Your task to perform on an android device: install app "Messenger Lite" Image 0: 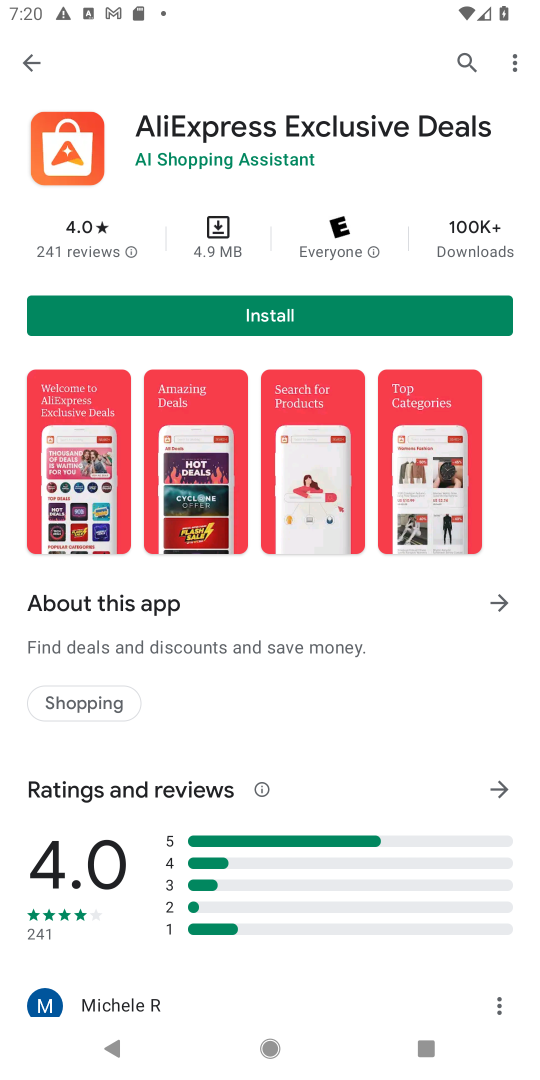
Step 0: press home button
Your task to perform on an android device: install app "Messenger Lite" Image 1: 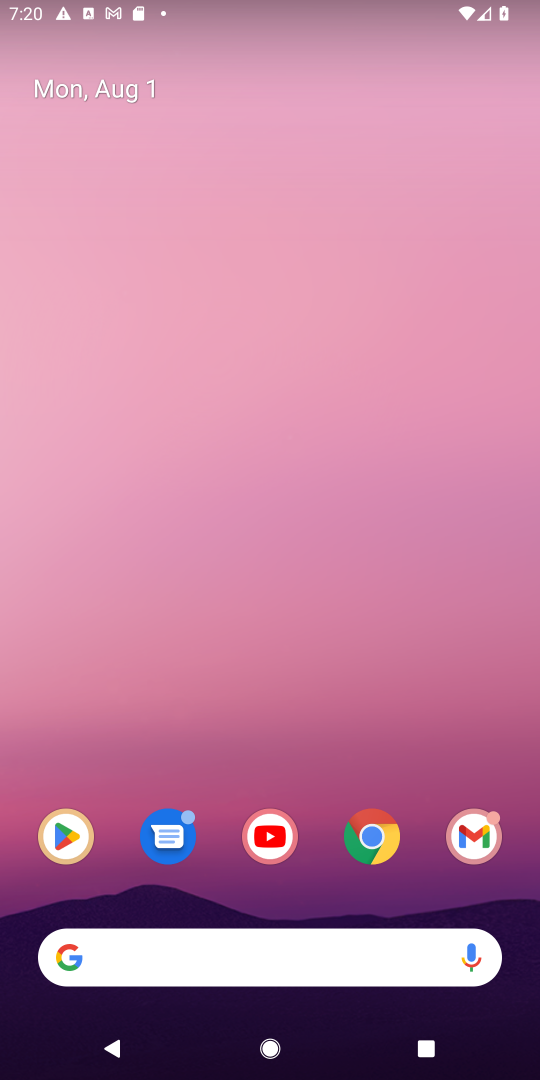
Step 1: click (63, 839)
Your task to perform on an android device: install app "Messenger Lite" Image 2: 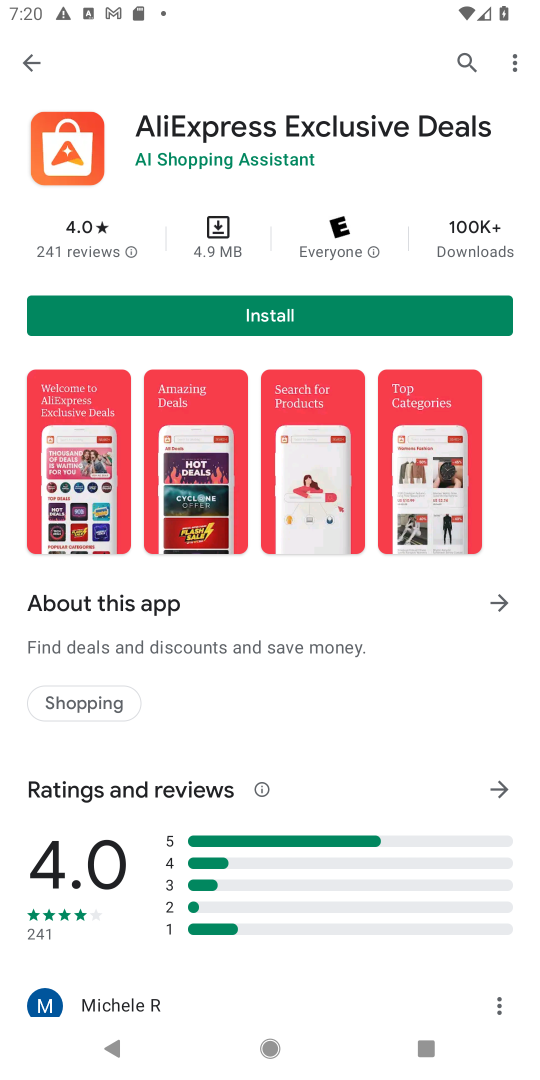
Step 2: click (468, 62)
Your task to perform on an android device: install app "Messenger Lite" Image 3: 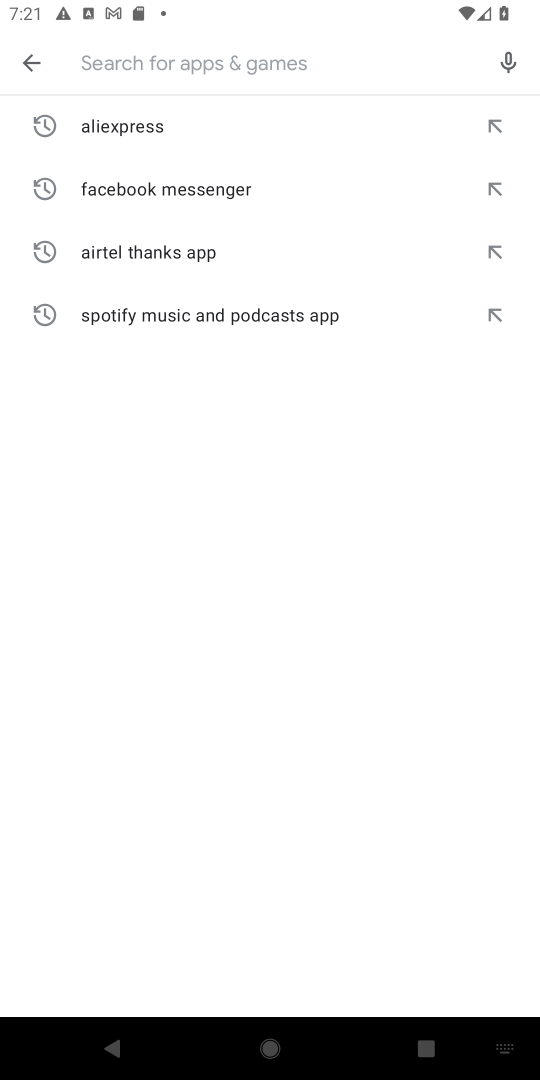
Step 3: type "Messenger Lite"
Your task to perform on an android device: install app "Messenger Lite" Image 4: 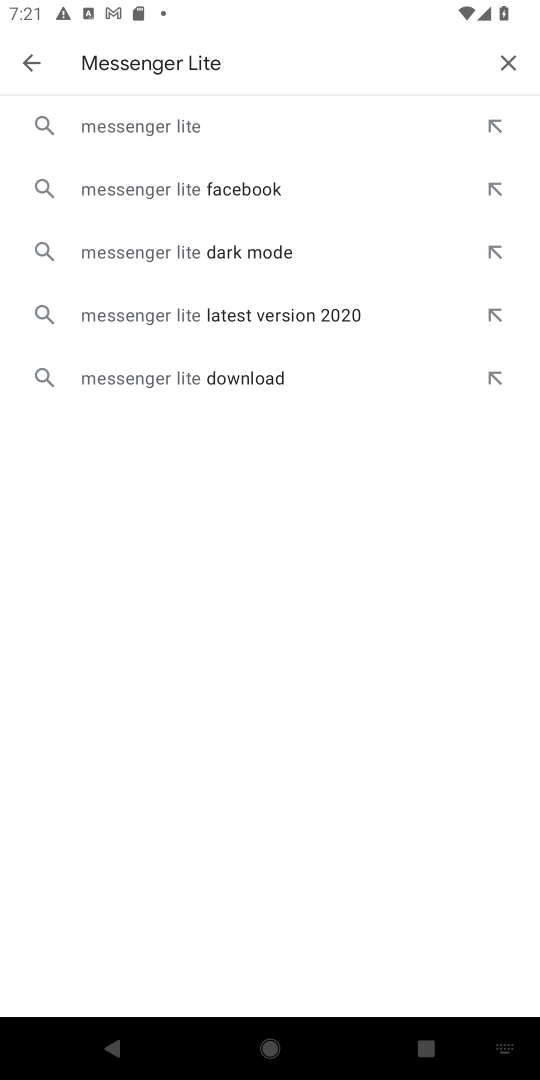
Step 4: click (163, 120)
Your task to perform on an android device: install app "Messenger Lite" Image 5: 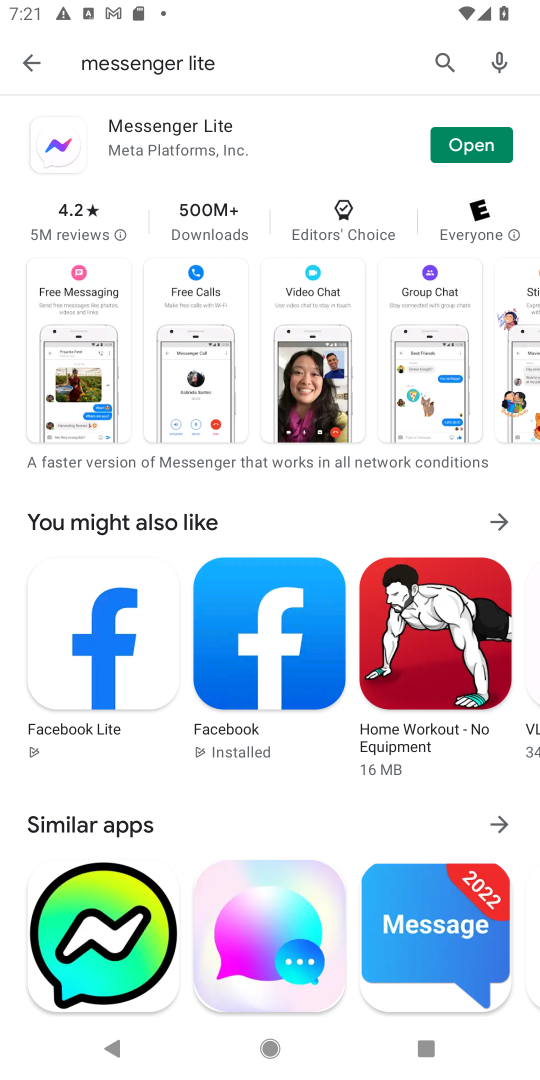
Step 5: task complete